Your task to perform on an android device: Search for Mexican restaurants on Maps Image 0: 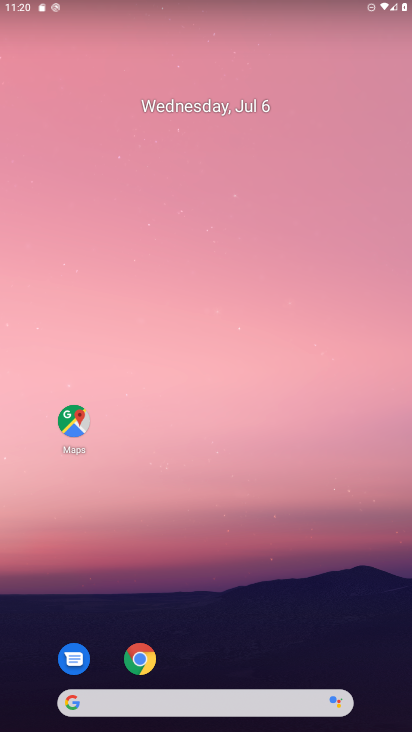
Step 0: click (80, 430)
Your task to perform on an android device: Search for Mexican restaurants on Maps Image 1: 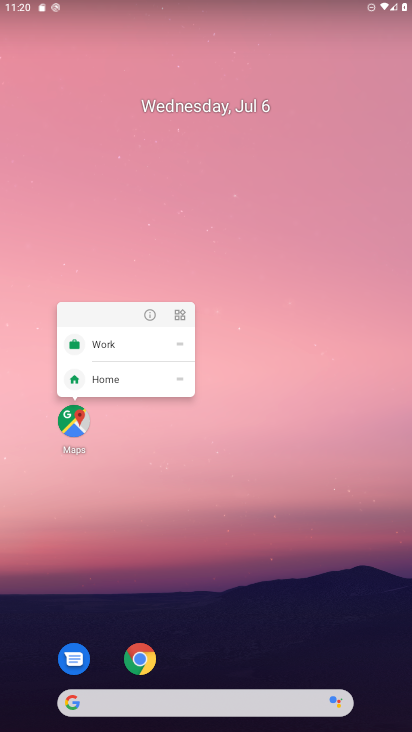
Step 1: click (71, 423)
Your task to perform on an android device: Search for Mexican restaurants on Maps Image 2: 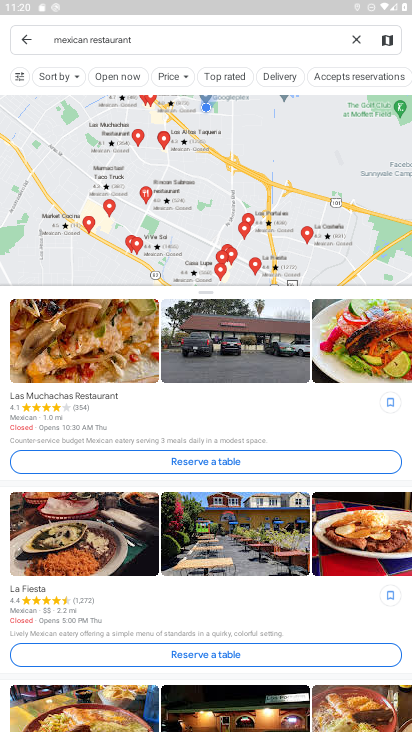
Step 2: task complete